Your task to perform on an android device: turn off priority inbox in the gmail app Image 0: 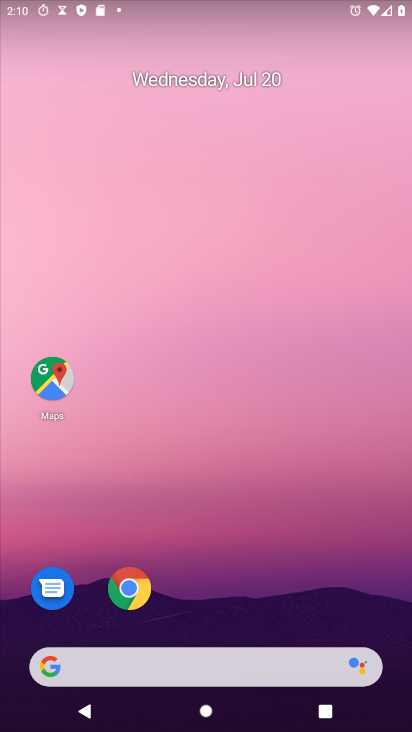
Step 0: drag from (161, 668) to (272, 38)
Your task to perform on an android device: turn off priority inbox in the gmail app Image 1: 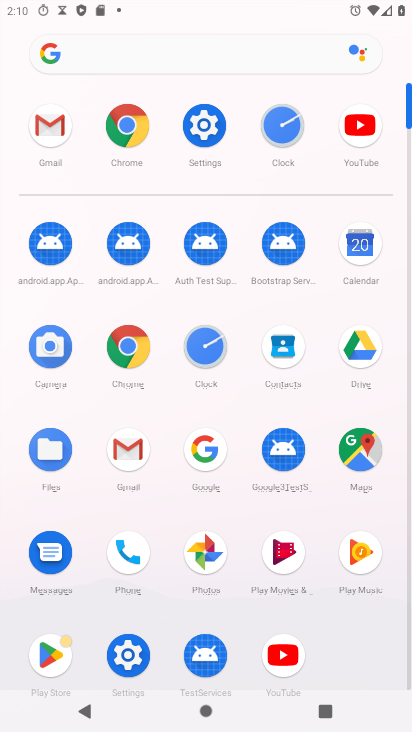
Step 1: click (125, 446)
Your task to perform on an android device: turn off priority inbox in the gmail app Image 2: 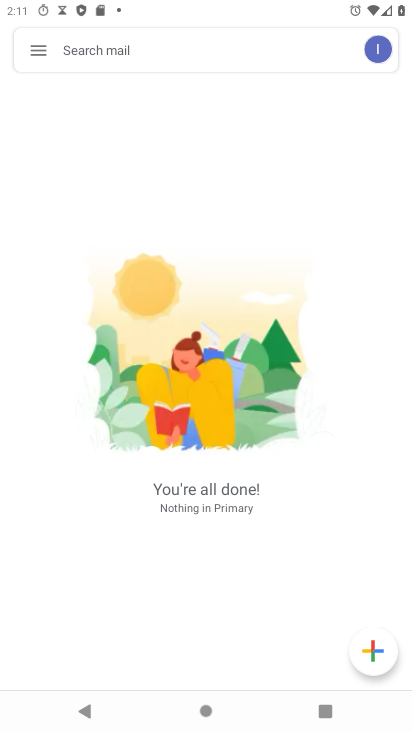
Step 2: click (34, 47)
Your task to perform on an android device: turn off priority inbox in the gmail app Image 3: 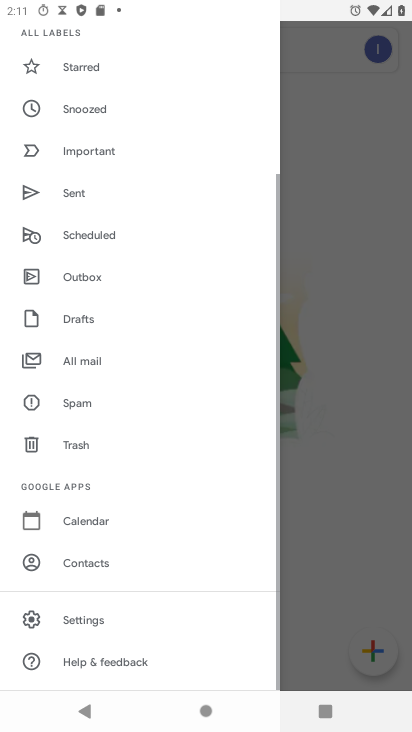
Step 3: click (113, 621)
Your task to perform on an android device: turn off priority inbox in the gmail app Image 4: 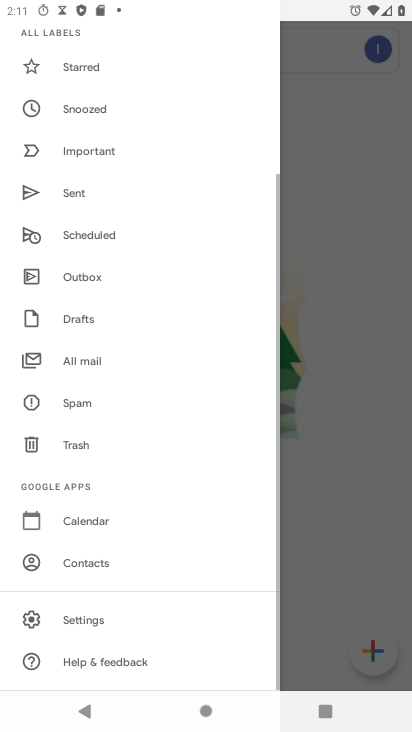
Step 4: click (113, 621)
Your task to perform on an android device: turn off priority inbox in the gmail app Image 5: 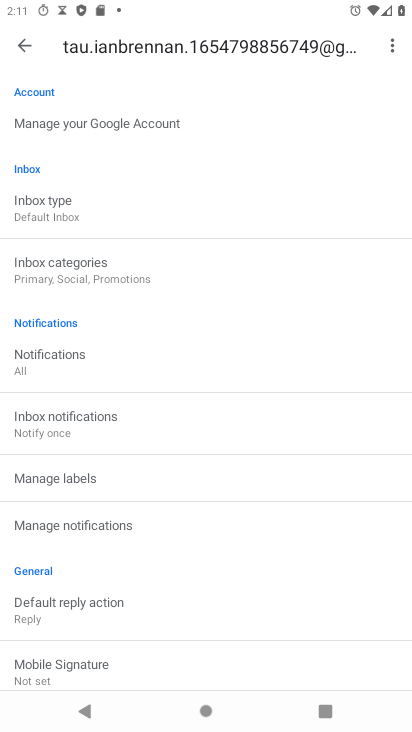
Step 5: drag from (129, 181) to (149, 534)
Your task to perform on an android device: turn off priority inbox in the gmail app Image 6: 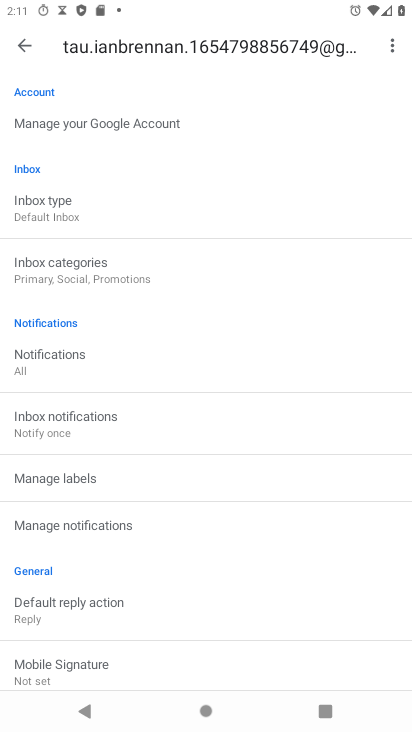
Step 6: click (71, 204)
Your task to perform on an android device: turn off priority inbox in the gmail app Image 7: 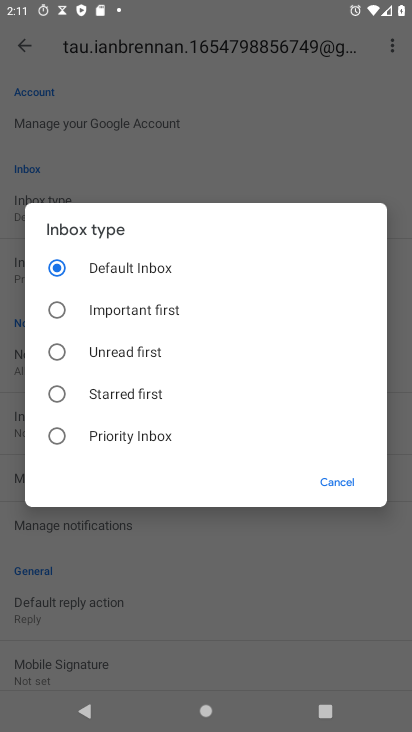
Step 7: task complete